Your task to perform on an android device: refresh tabs in the chrome app Image 0: 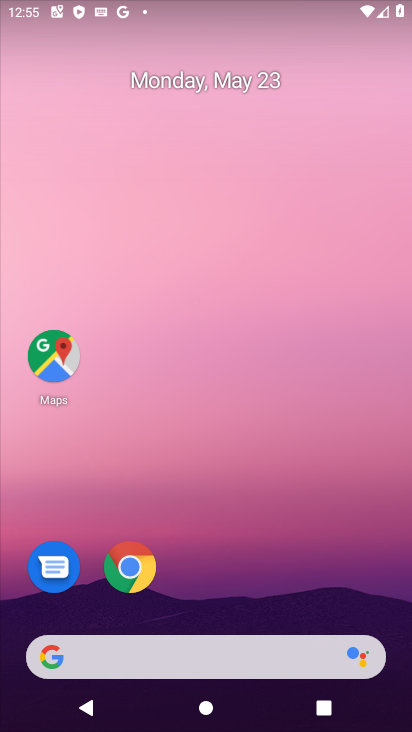
Step 0: click (152, 570)
Your task to perform on an android device: refresh tabs in the chrome app Image 1: 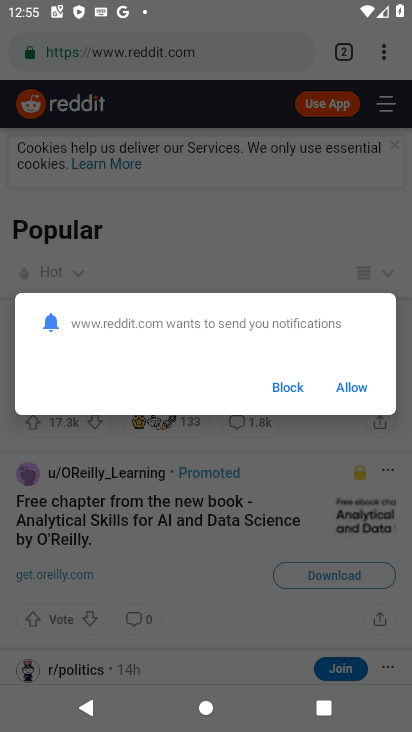
Step 1: click (271, 396)
Your task to perform on an android device: refresh tabs in the chrome app Image 2: 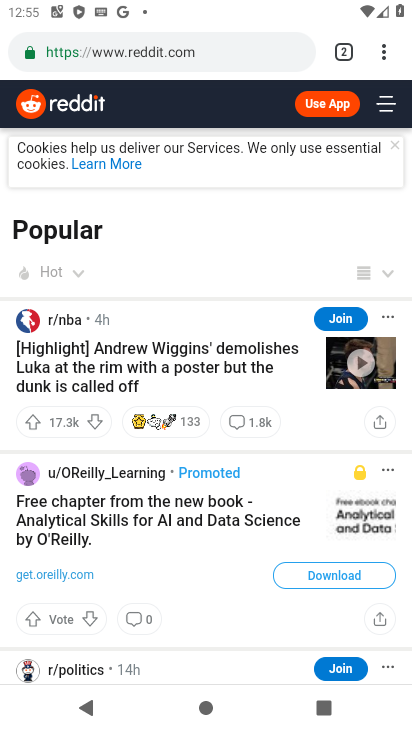
Step 2: click (384, 52)
Your task to perform on an android device: refresh tabs in the chrome app Image 3: 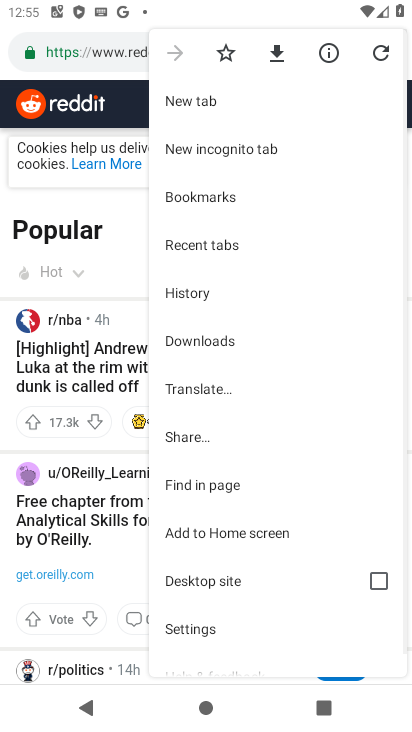
Step 3: click (384, 54)
Your task to perform on an android device: refresh tabs in the chrome app Image 4: 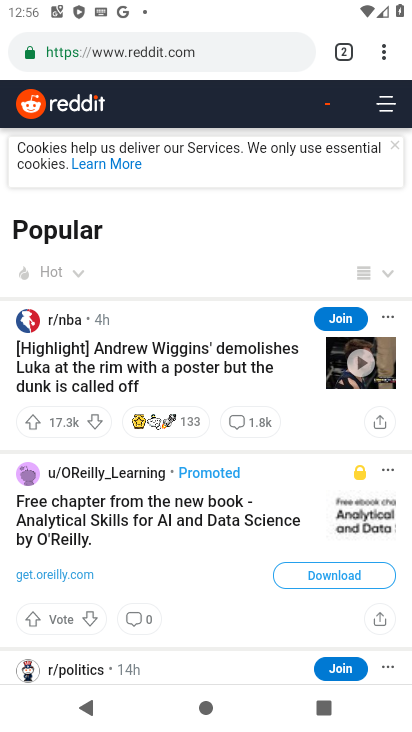
Step 4: task complete